Your task to perform on an android device: turn smart compose on in the gmail app Image 0: 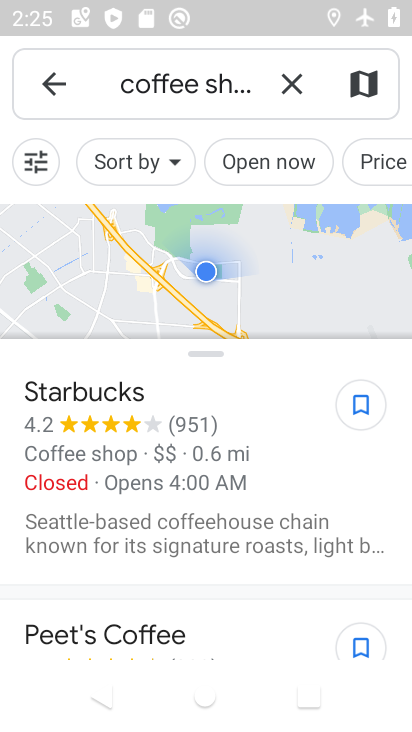
Step 0: press home button
Your task to perform on an android device: turn smart compose on in the gmail app Image 1: 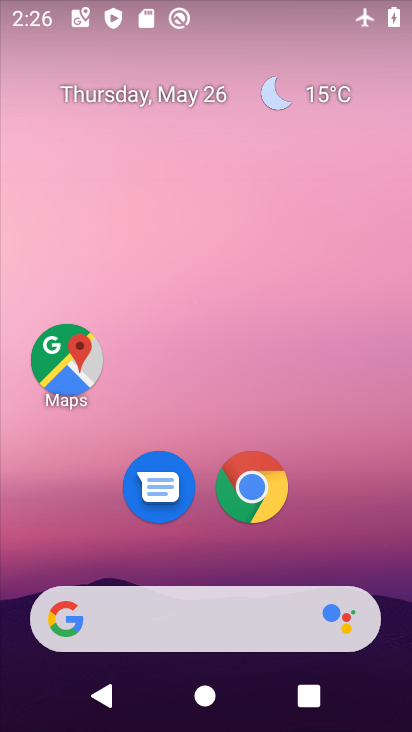
Step 1: drag from (216, 558) to (216, 274)
Your task to perform on an android device: turn smart compose on in the gmail app Image 2: 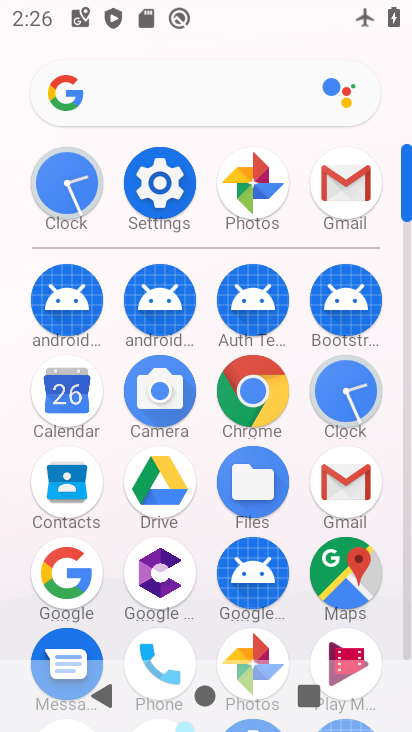
Step 2: click (347, 500)
Your task to perform on an android device: turn smart compose on in the gmail app Image 3: 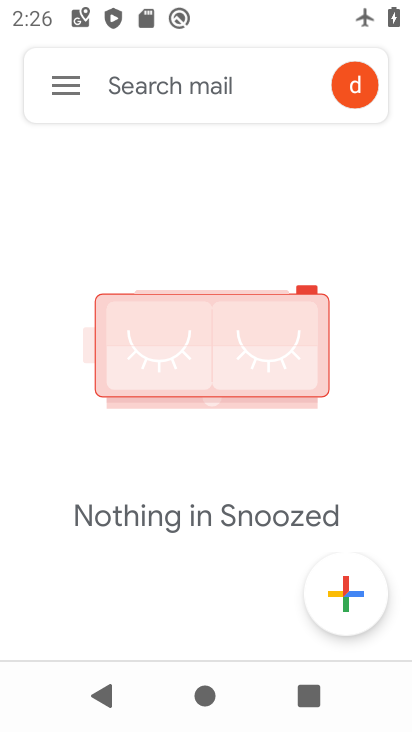
Step 3: click (59, 78)
Your task to perform on an android device: turn smart compose on in the gmail app Image 4: 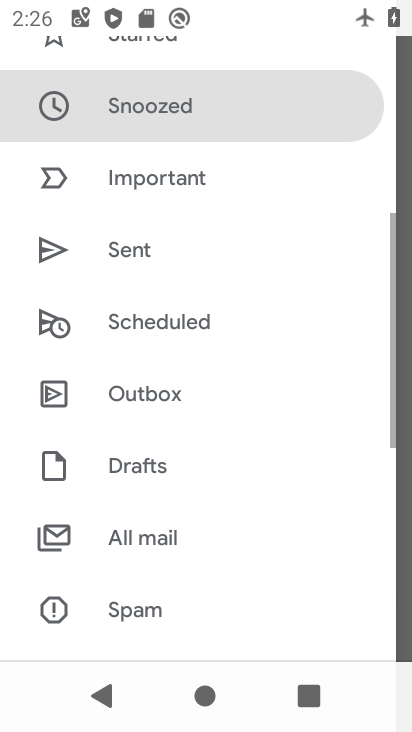
Step 4: drag from (131, 618) to (208, 215)
Your task to perform on an android device: turn smart compose on in the gmail app Image 5: 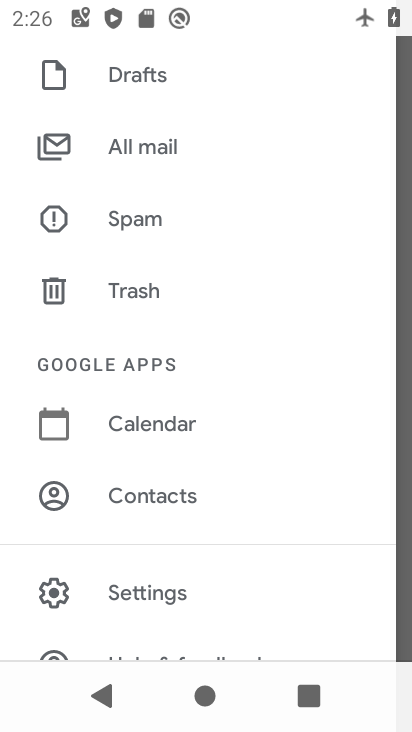
Step 5: drag from (207, 576) to (240, 247)
Your task to perform on an android device: turn smart compose on in the gmail app Image 6: 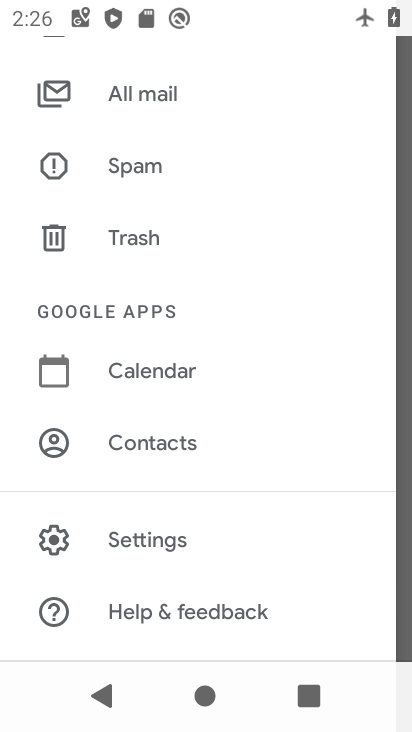
Step 6: click (193, 532)
Your task to perform on an android device: turn smart compose on in the gmail app Image 7: 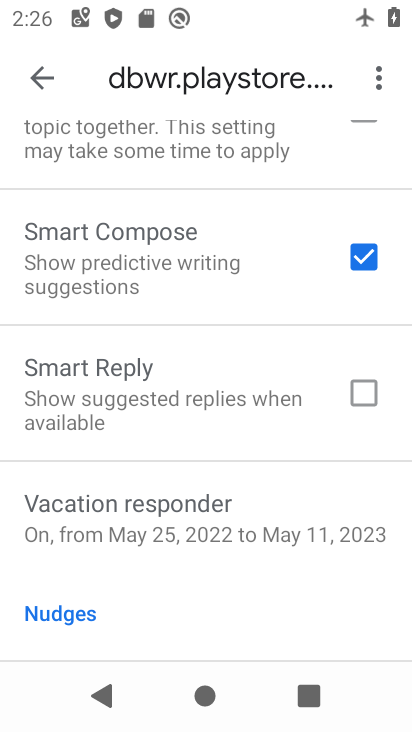
Step 7: task complete